Your task to perform on an android device: set the stopwatch Image 0: 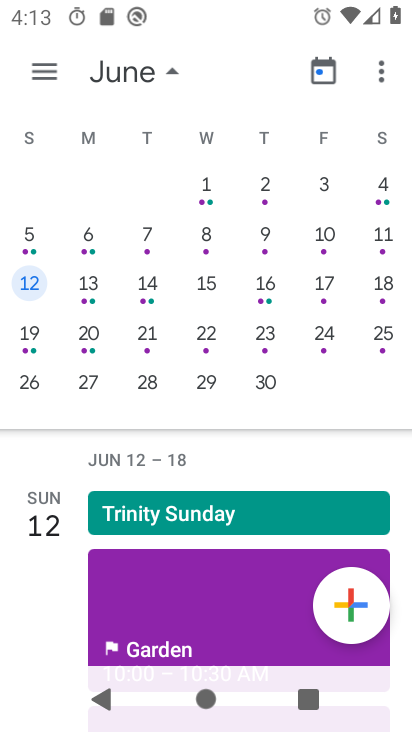
Step 0: press home button
Your task to perform on an android device: set the stopwatch Image 1: 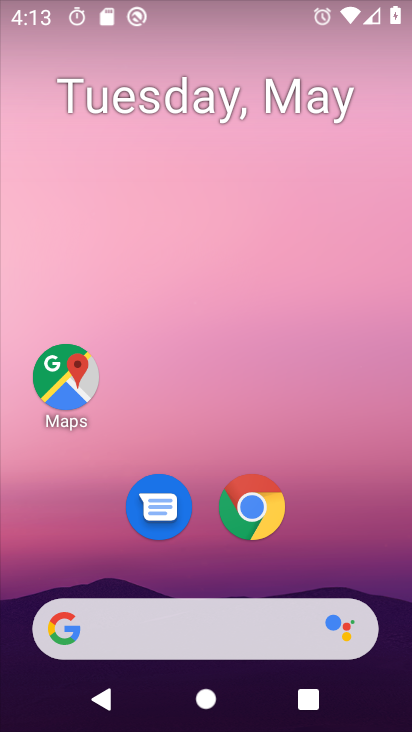
Step 1: drag from (203, 544) to (303, 33)
Your task to perform on an android device: set the stopwatch Image 2: 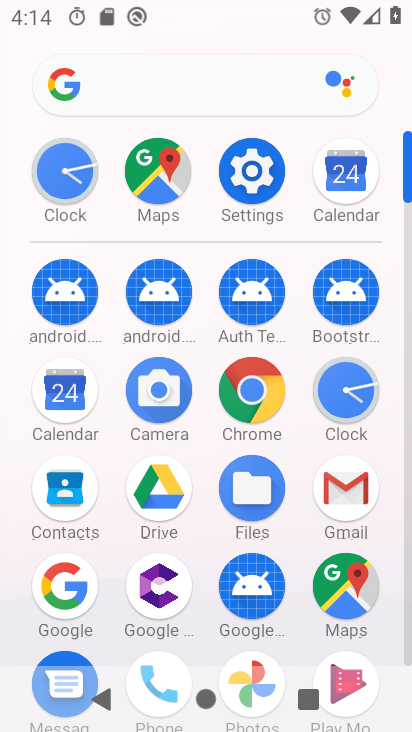
Step 2: click (350, 389)
Your task to perform on an android device: set the stopwatch Image 3: 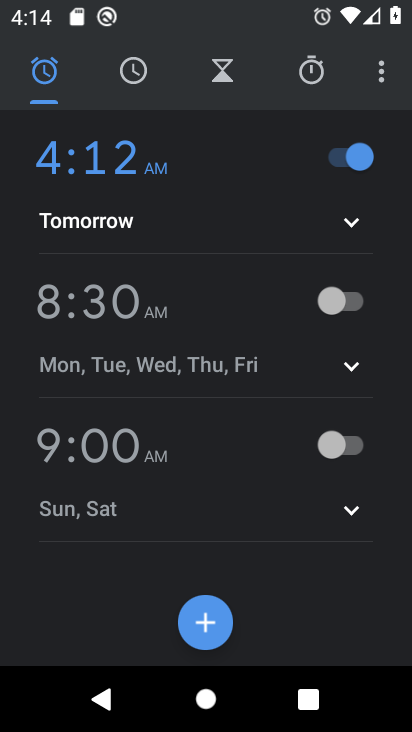
Step 3: click (307, 68)
Your task to perform on an android device: set the stopwatch Image 4: 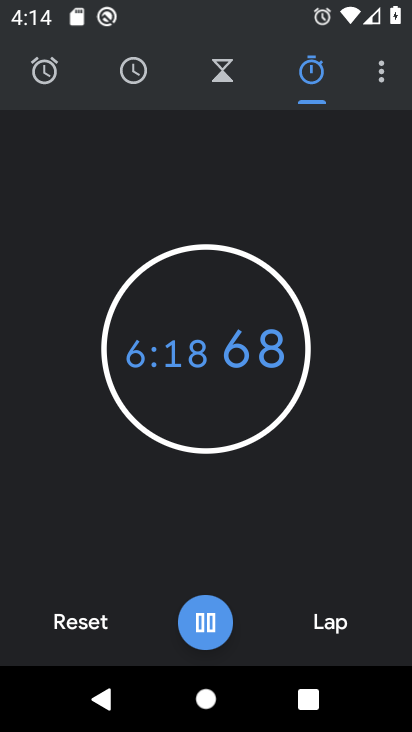
Step 4: task complete